Your task to perform on an android device: Open Youtube and go to "Your channel" Image 0: 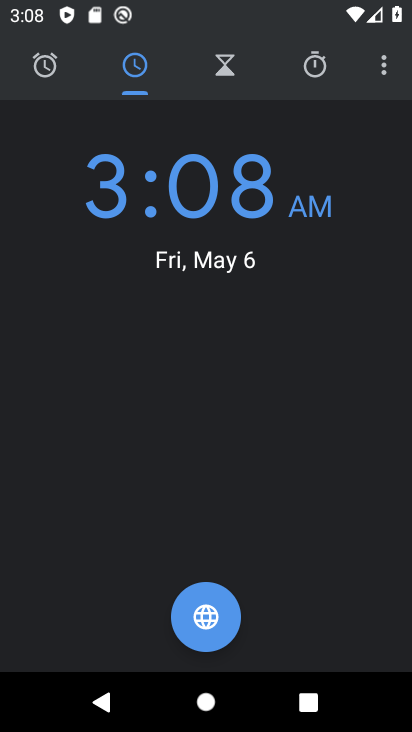
Step 0: press home button
Your task to perform on an android device: Open Youtube and go to "Your channel" Image 1: 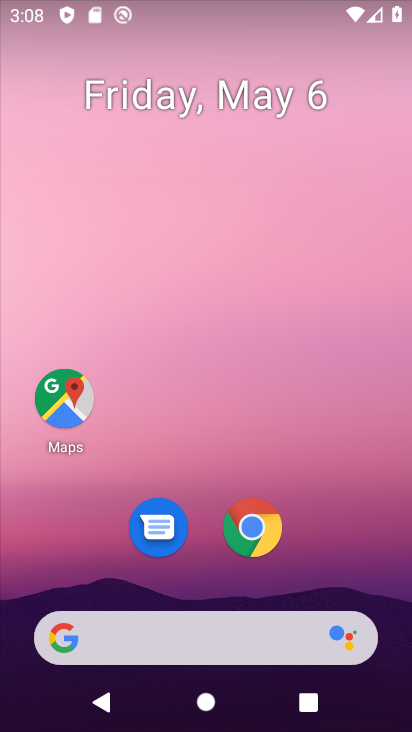
Step 1: drag from (336, 516) to (294, 27)
Your task to perform on an android device: Open Youtube and go to "Your channel" Image 2: 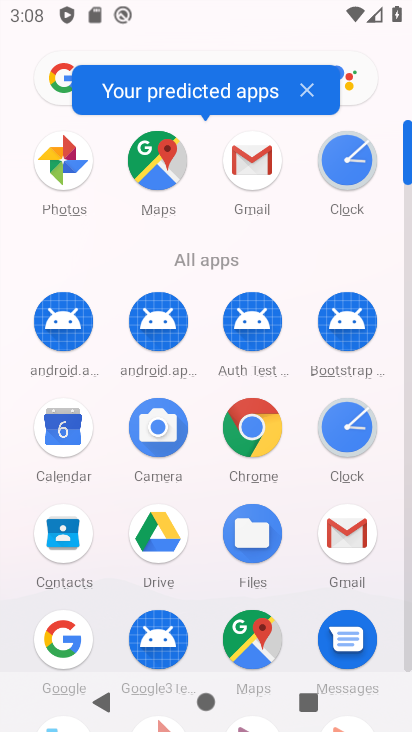
Step 2: drag from (304, 539) to (337, 148)
Your task to perform on an android device: Open Youtube and go to "Your channel" Image 3: 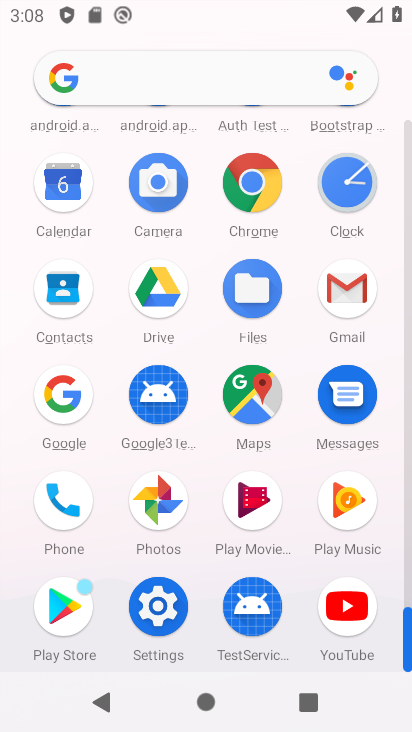
Step 3: click (348, 598)
Your task to perform on an android device: Open Youtube and go to "Your channel" Image 4: 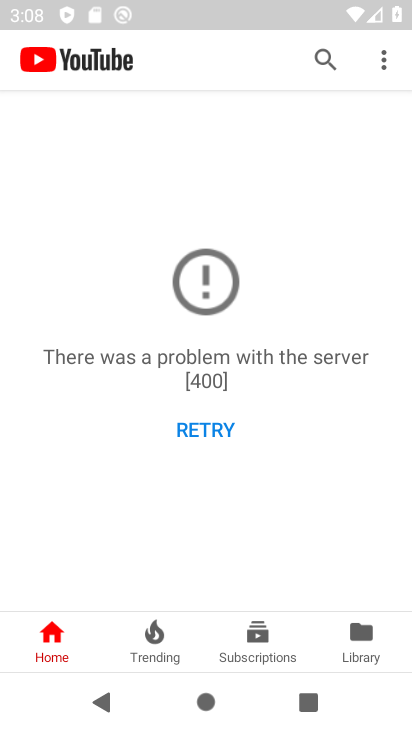
Step 4: click (385, 57)
Your task to perform on an android device: Open Youtube and go to "Your channel" Image 5: 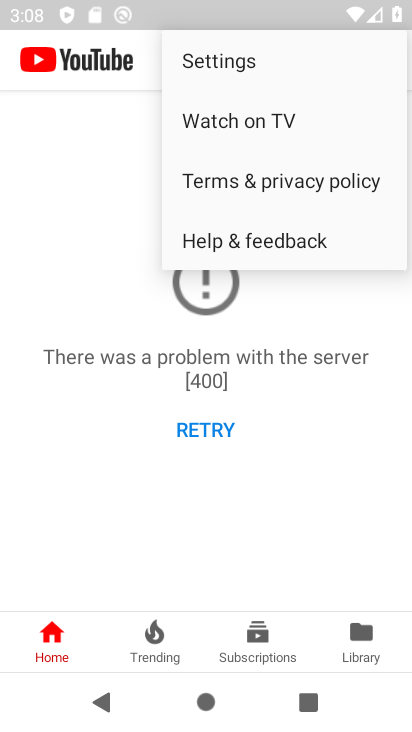
Step 5: click (279, 568)
Your task to perform on an android device: Open Youtube and go to "Your channel" Image 6: 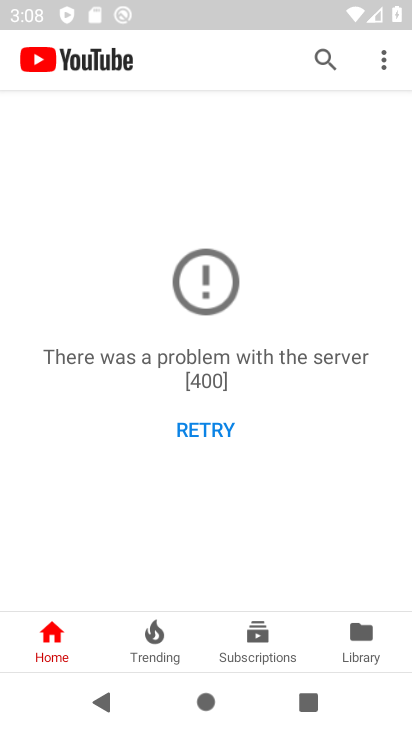
Step 6: click (153, 653)
Your task to perform on an android device: Open Youtube and go to "Your channel" Image 7: 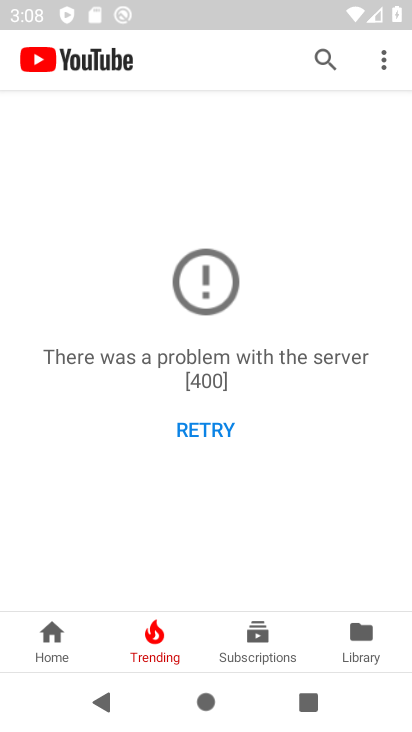
Step 7: click (271, 637)
Your task to perform on an android device: Open Youtube and go to "Your channel" Image 8: 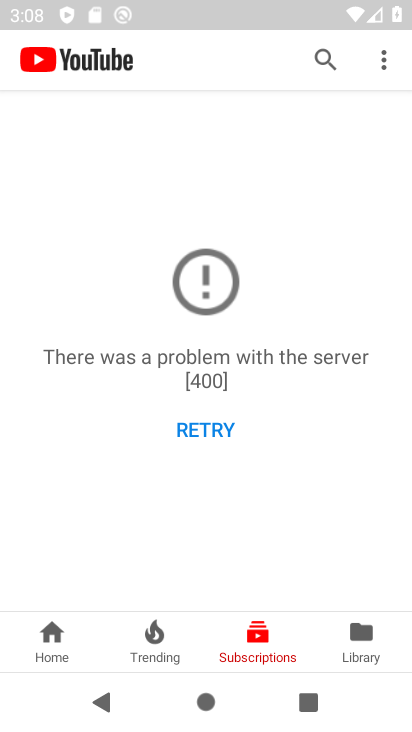
Step 8: click (350, 658)
Your task to perform on an android device: Open Youtube and go to "Your channel" Image 9: 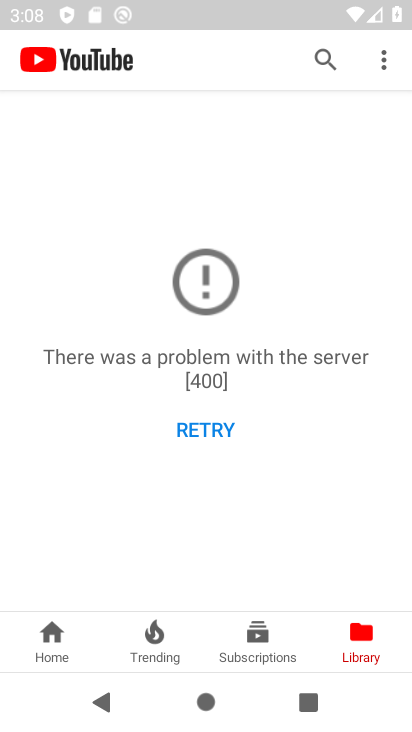
Step 9: click (384, 61)
Your task to perform on an android device: Open Youtube and go to "Your channel" Image 10: 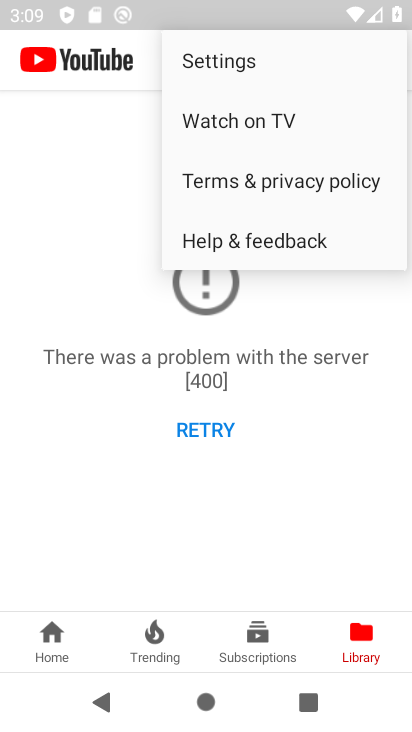
Step 10: click (266, 329)
Your task to perform on an android device: Open Youtube and go to "Your channel" Image 11: 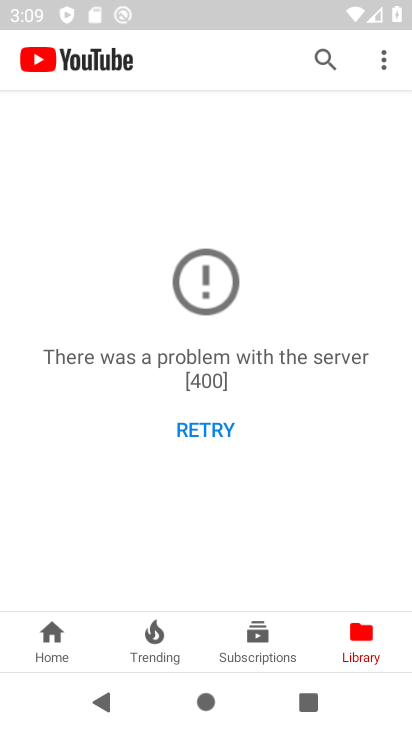
Step 11: task complete